Your task to perform on an android device: Search for dining sets on article.com Image 0: 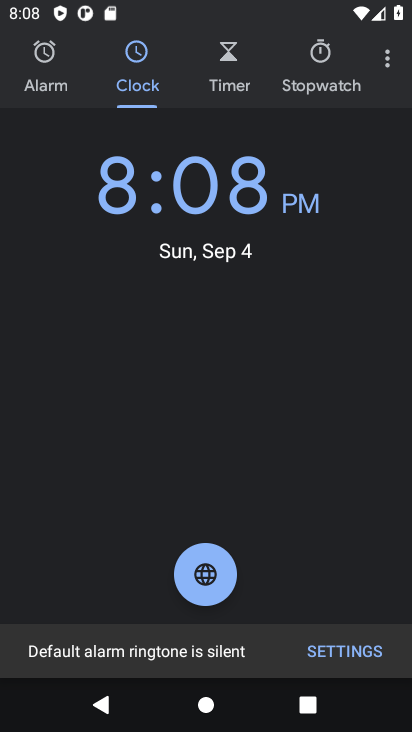
Step 0: press home button
Your task to perform on an android device: Search for dining sets on article.com Image 1: 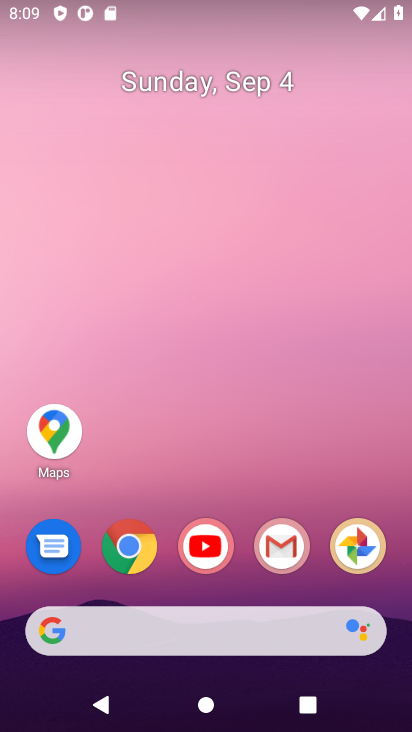
Step 1: click (128, 546)
Your task to perform on an android device: Search for dining sets on article.com Image 2: 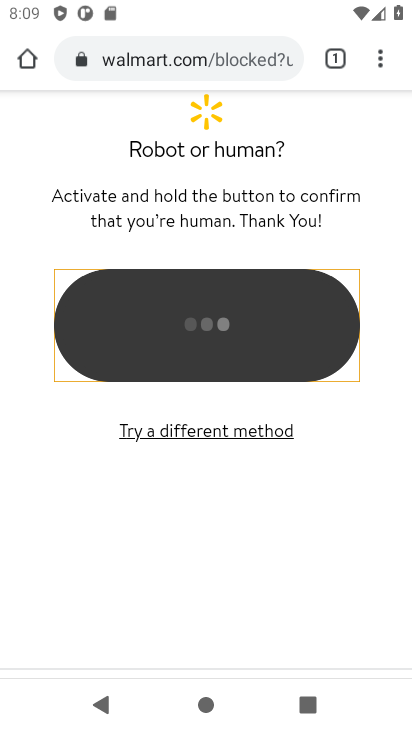
Step 2: click (184, 61)
Your task to perform on an android device: Search for dining sets on article.com Image 3: 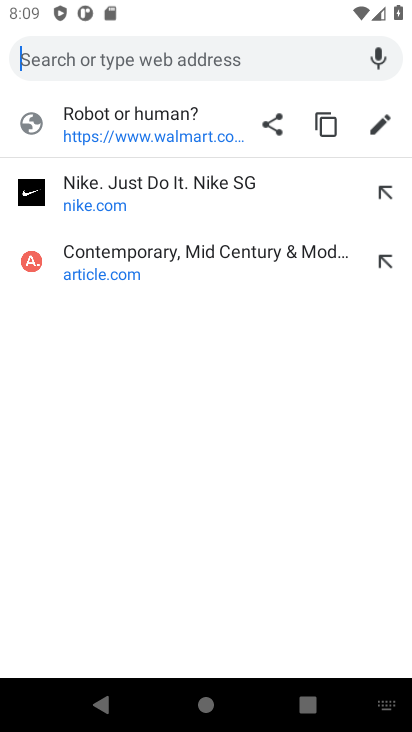
Step 3: type "article.com"
Your task to perform on an android device: Search for dining sets on article.com Image 4: 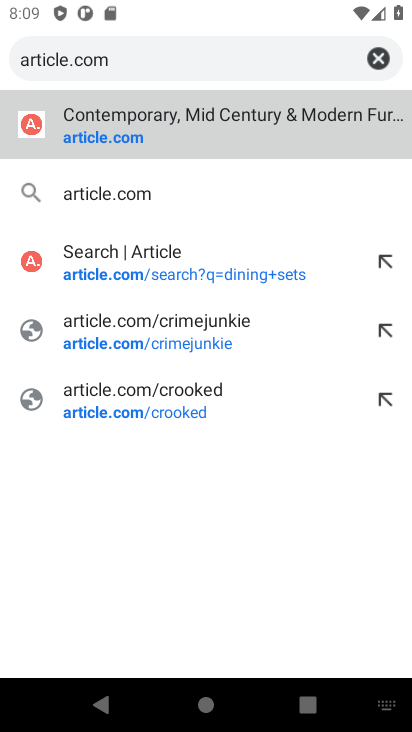
Step 4: click (122, 200)
Your task to perform on an android device: Search for dining sets on article.com Image 5: 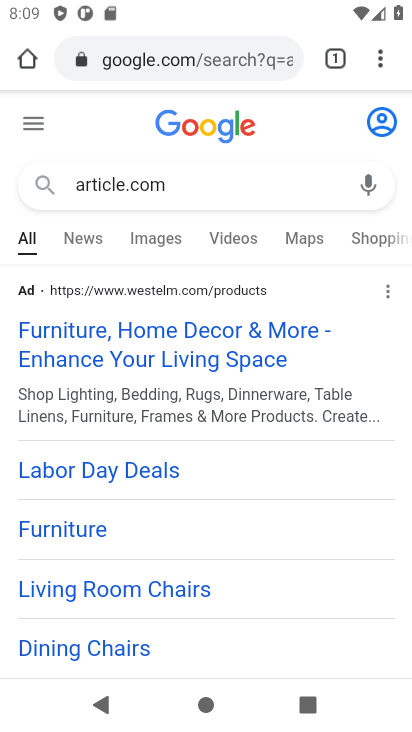
Step 5: drag from (276, 541) to (293, 112)
Your task to perform on an android device: Search for dining sets on article.com Image 6: 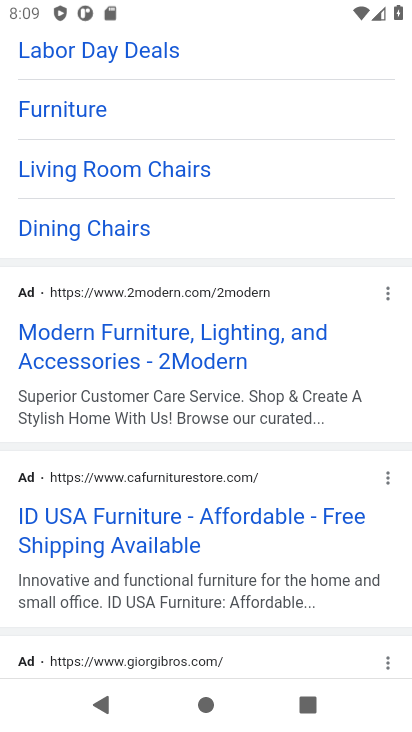
Step 6: drag from (264, 505) to (264, 145)
Your task to perform on an android device: Search for dining sets on article.com Image 7: 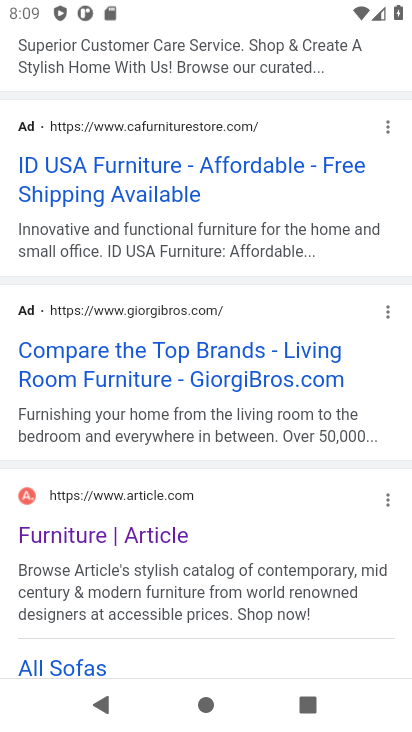
Step 7: click (103, 498)
Your task to perform on an android device: Search for dining sets on article.com Image 8: 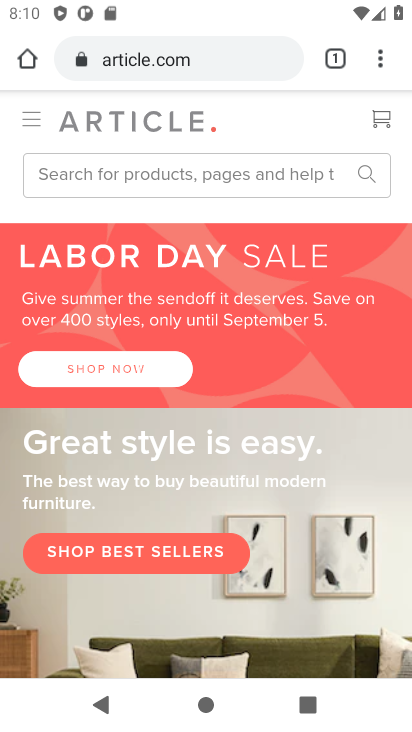
Step 8: click (162, 176)
Your task to perform on an android device: Search for dining sets on article.com Image 9: 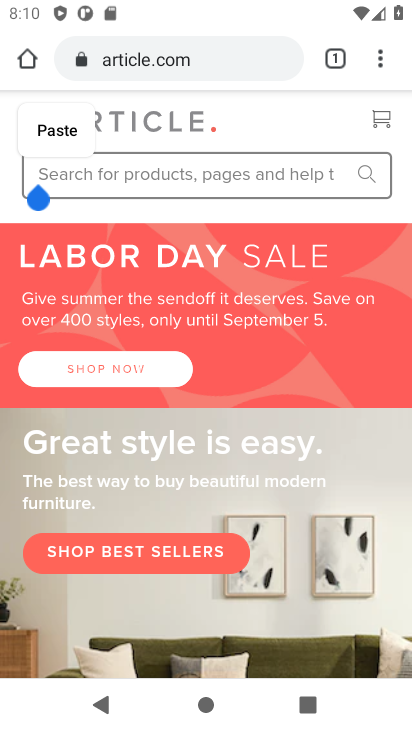
Step 9: type "dining sets"
Your task to perform on an android device: Search for dining sets on article.com Image 10: 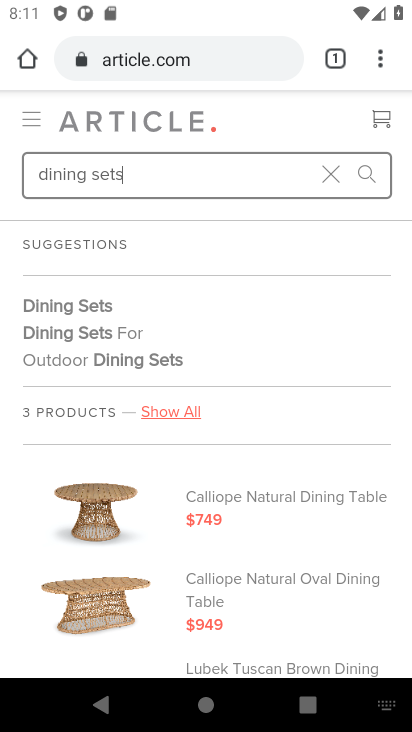
Step 10: task complete